Your task to perform on an android device: turn on improve location accuracy Image 0: 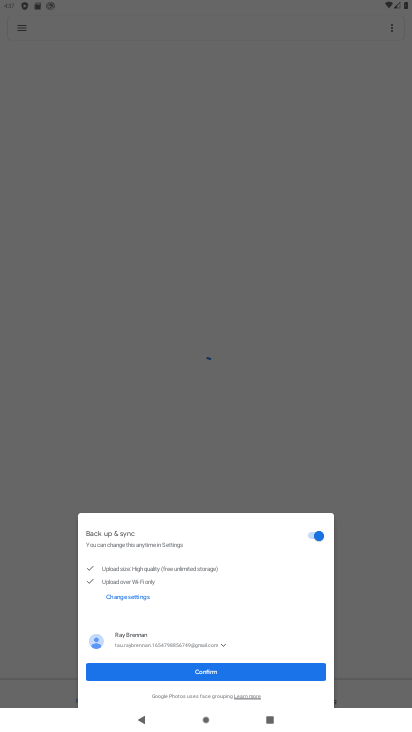
Step 0: click (294, 670)
Your task to perform on an android device: turn on improve location accuracy Image 1: 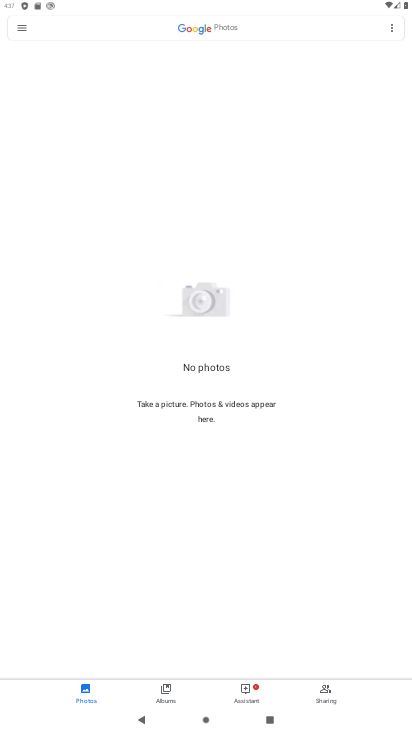
Step 1: press home button
Your task to perform on an android device: turn on improve location accuracy Image 2: 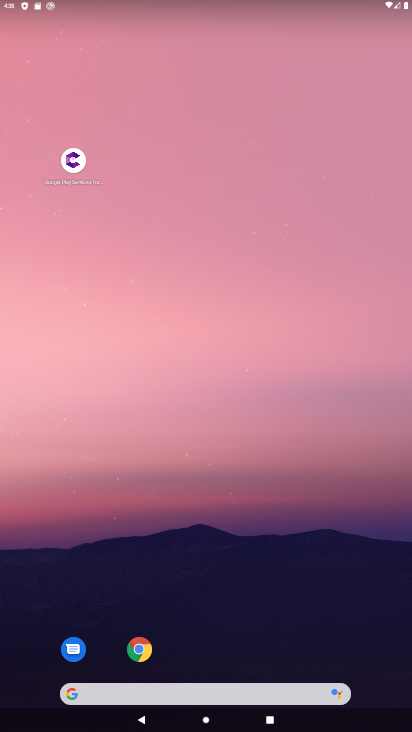
Step 2: drag from (322, 622) to (305, 16)
Your task to perform on an android device: turn on improve location accuracy Image 3: 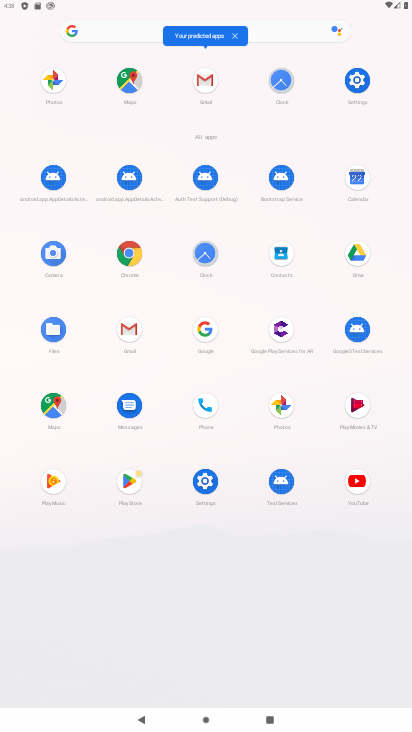
Step 3: click (351, 93)
Your task to perform on an android device: turn on improve location accuracy Image 4: 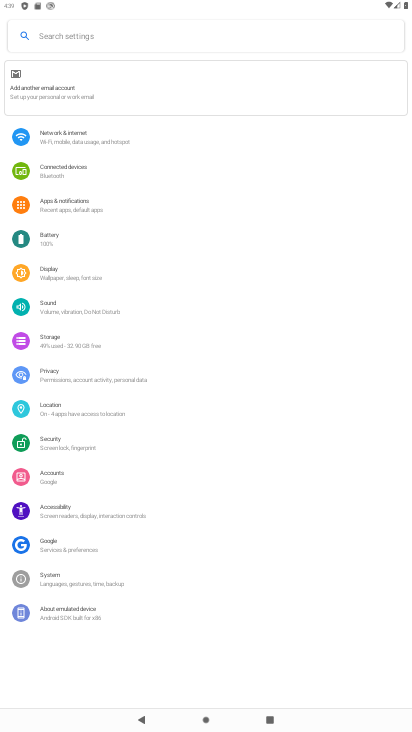
Step 4: click (93, 407)
Your task to perform on an android device: turn on improve location accuracy Image 5: 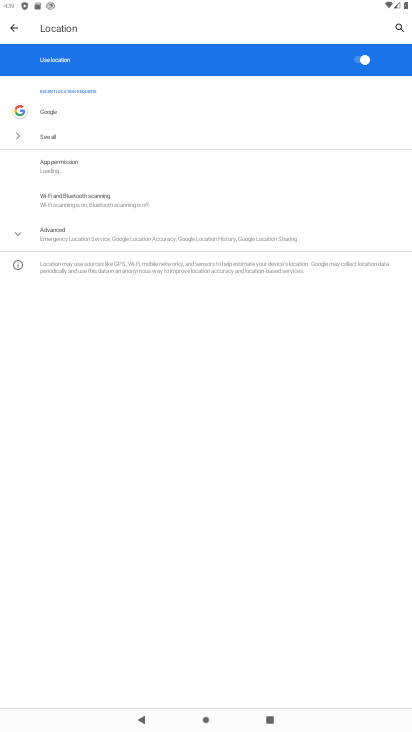
Step 5: click (227, 242)
Your task to perform on an android device: turn on improve location accuracy Image 6: 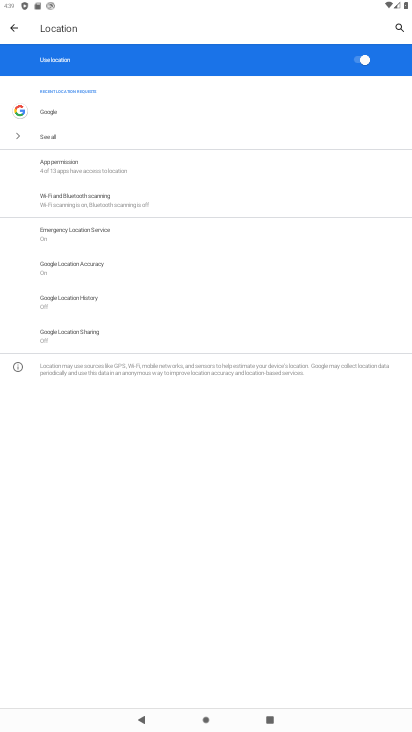
Step 6: click (186, 266)
Your task to perform on an android device: turn on improve location accuracy Image 7: 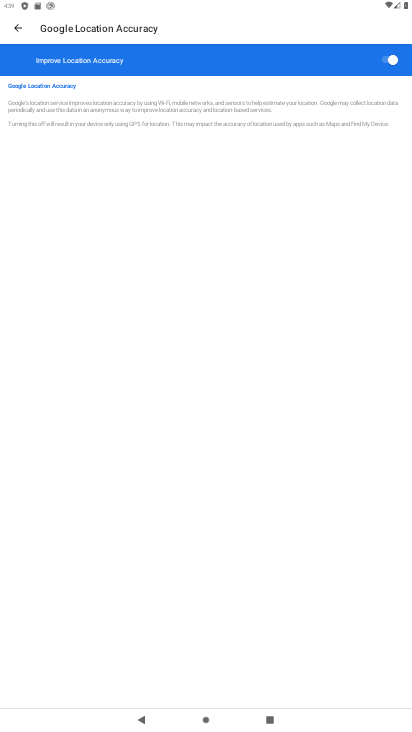
Step 7: task complete